Your task to perform on an android device: Open Youtube and go to the subscriptions tab Image 0: 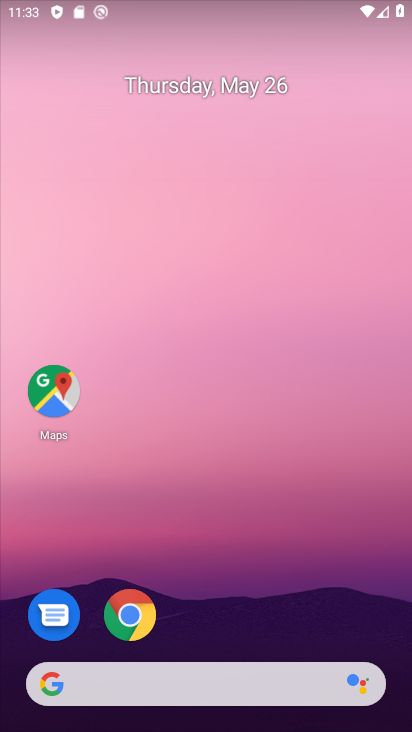
Step 0: drag from (351, 589) to (353, 5)
Your task to perform on an android device: Open Youtube and go to the subscriptions tab Image 1: 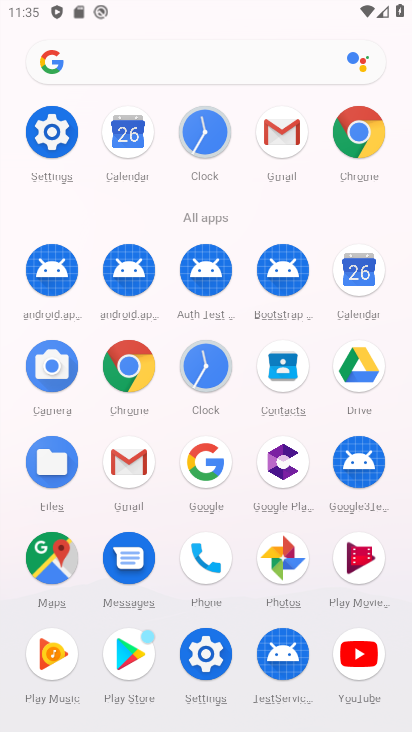
Step 1: click (355, 674)
Your task to perform on an android device: Open Youtube and go to the subscriptions tab Image 2: 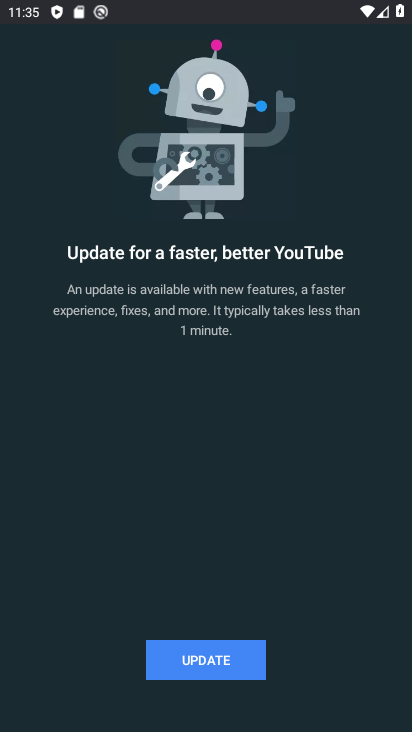
Step 2: click (169, 679)
Your task to perform on an android device: Open Youtube and go to the subscriptions tab Image 3: 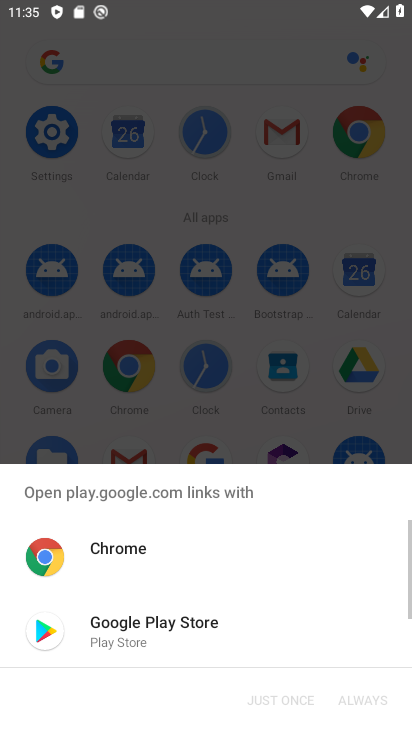
Step 3: click (143, 640)
Your task to perform on an android device: Open Youtube and go to the subscriptions tab Image 4: 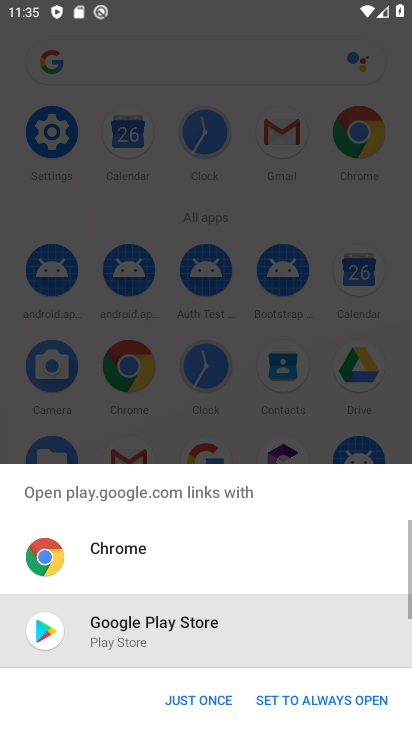
Step 4: click (190, 706)
Your task to perform on an android device: Open Youtube and go to the subscriptions tab Image 5: 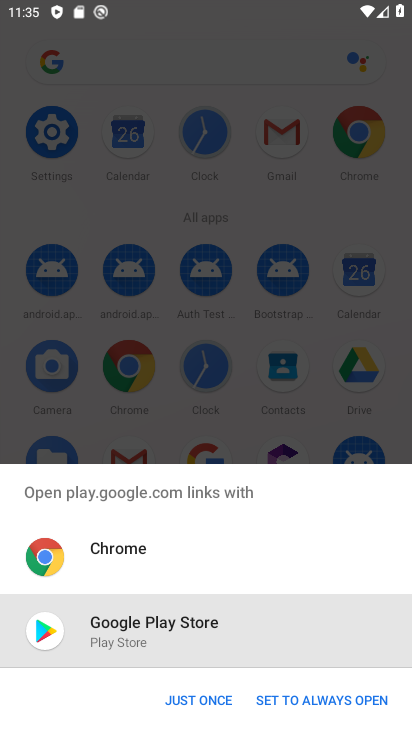
Step 5: click (177, 701)
Your task to perform on an android device: Open Youtube and go to the subscriptions tab Image 6: 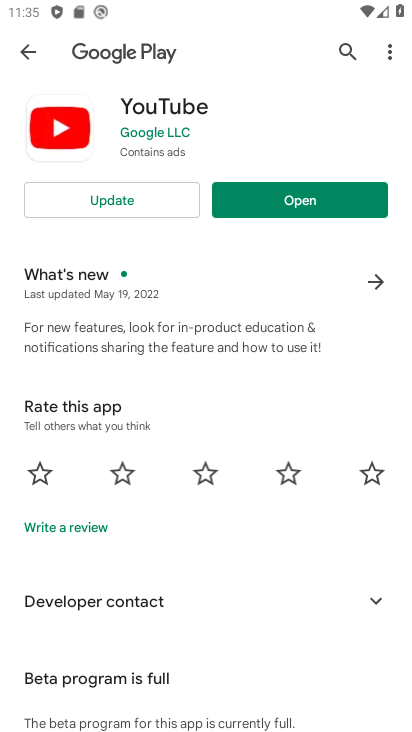
Step 6: click (111, 214)
Your task to perform on an android device: Open Youtube and go to the subscriptions tab Image 7: 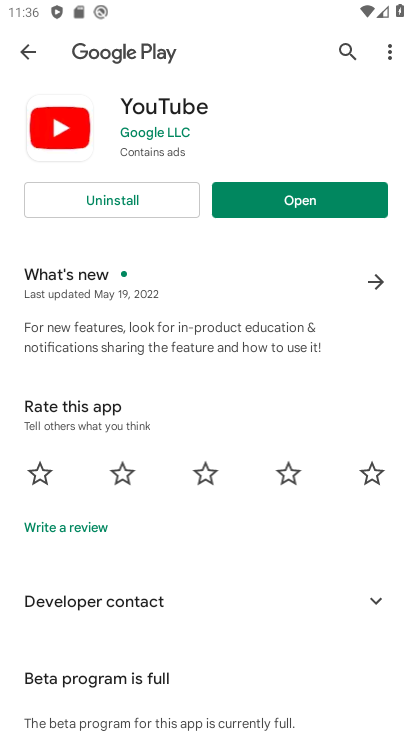
Step 7: click (292, 200)
Your task to perform on an android device: Open Youtube and go to the subscriptions tab Image 8: 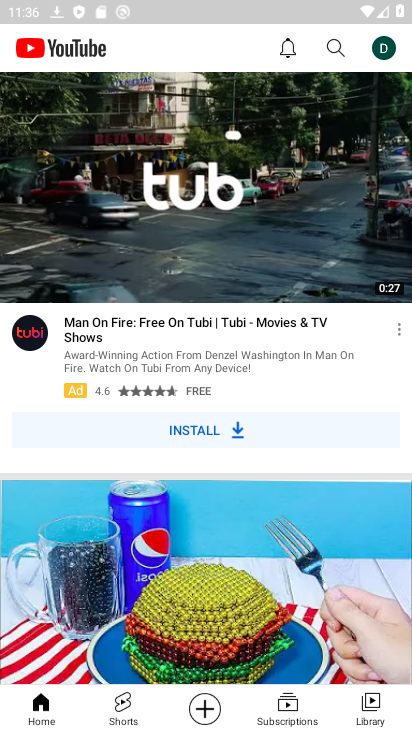
Step 8: click (283, 701)
Your task to perform on an android device: Open Youtube and go to the subscriptions tab Image 9: 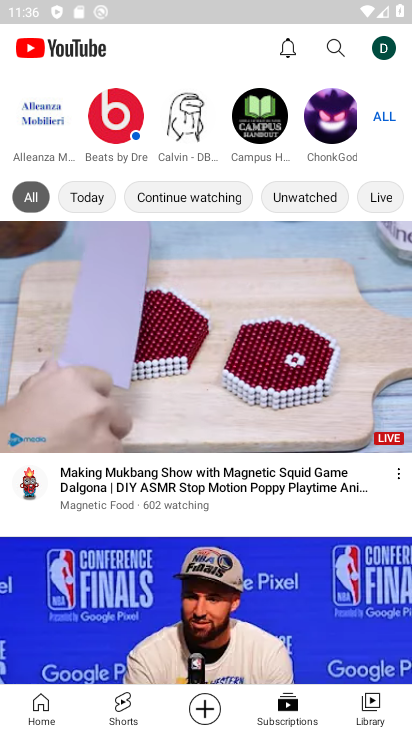
Step 9: task complete